Your task to perform on an android device: toggle javascript in the chrome app Image 0: 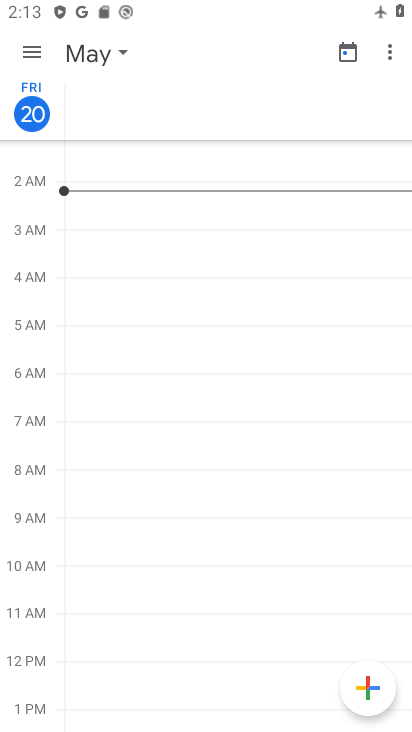
Step 0: press home button
Your task to perform on an android device: toggle javascript in the chrome app Image 1: 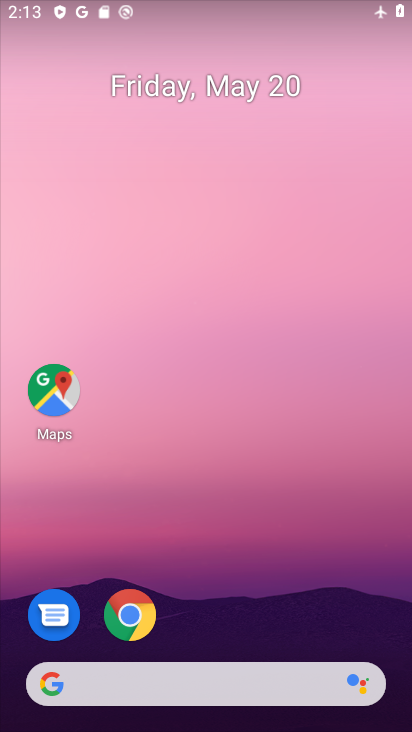
Step 1: click (142, 621)
Your task to perform on an android device: toggle javascript in the chrome app Image 2: 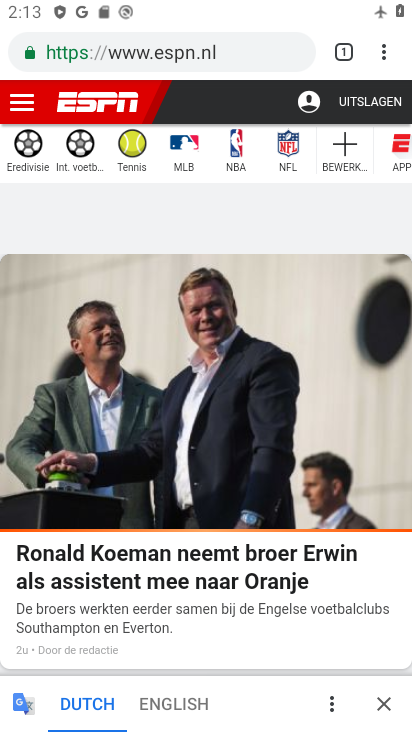
Step 2: click (377, 60)
Your task to perform on an android device: toggle javascript in the chrome app Image 3: 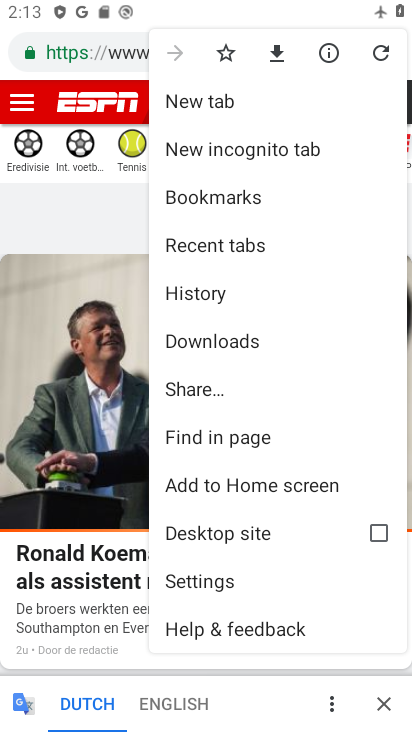
Step 3: click (271, 577)
Your task to perform on an android device: toggle javascript in the chrome app Image 4: 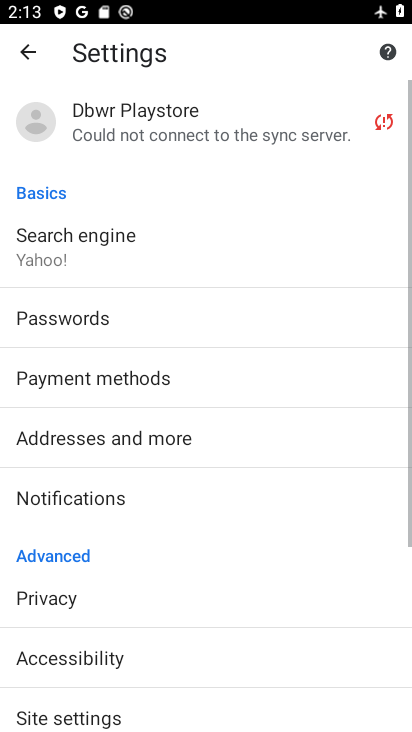
Step 4: drag from (271, 577) to (218, 88)
Your task to perform on an android device: toggle javascript in the chrome app Image 5: 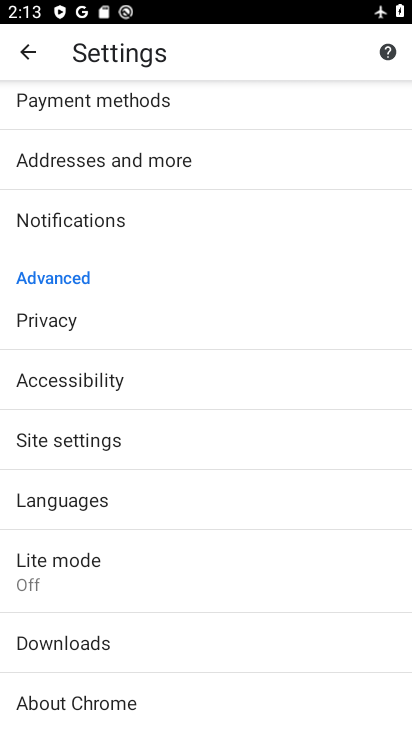
Step 5: click (194, 452)
Your task to perform on an android device: toggle javascript in the chrome app Image 6: 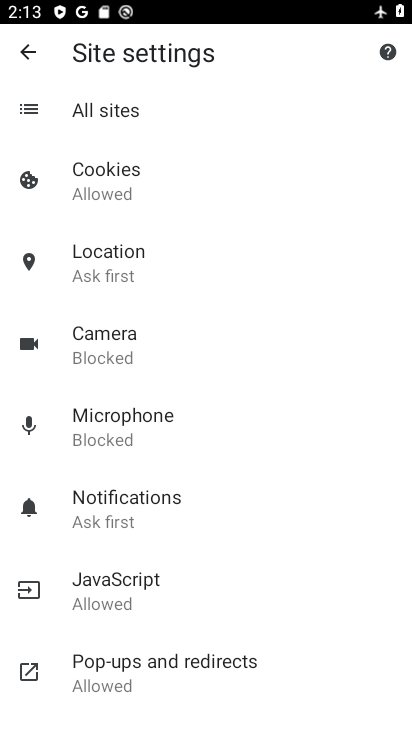
Step 6: click (199, 602)
Your task to perform on an android device: toggle javascript in the chrome app Image 7: 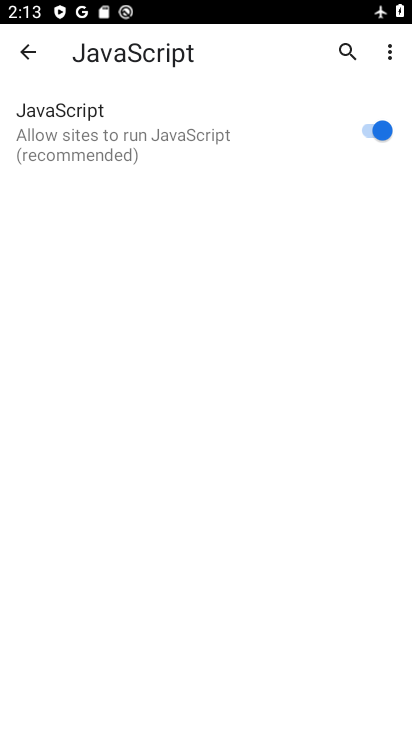
Step 7: click (370, 122)
Your task to perform on an android device: toggle javascript in the chrome app Image 8: 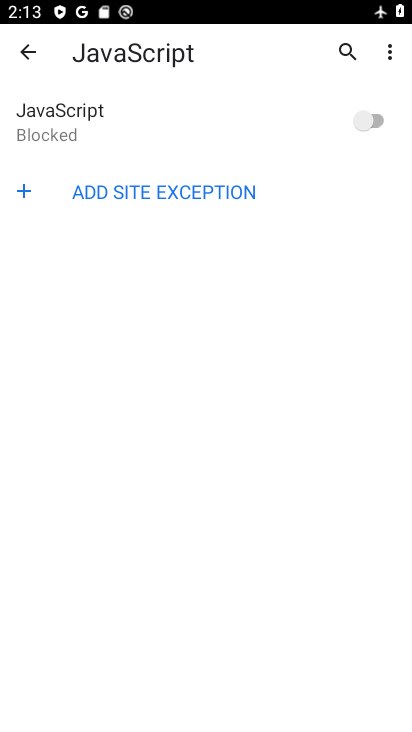
Step 8: task complete